Your task to perform on an android device: all mails in gmail Image 0: 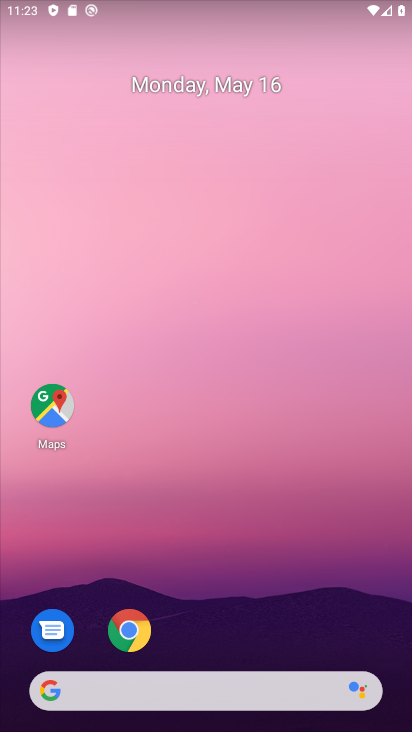
Step 0: drag from (203, 659) to (282, 283)
Your task to perform on an android device: all mails in gmail Image 1: 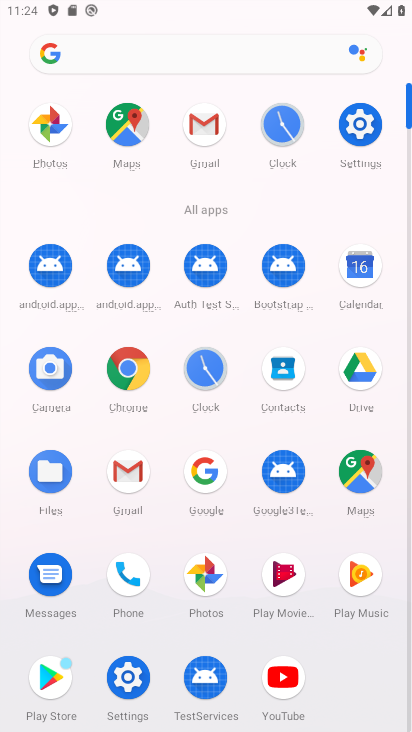
Step 1: click (145, 486)
Your task to perform on an android device: all mails in gmail Image 2: 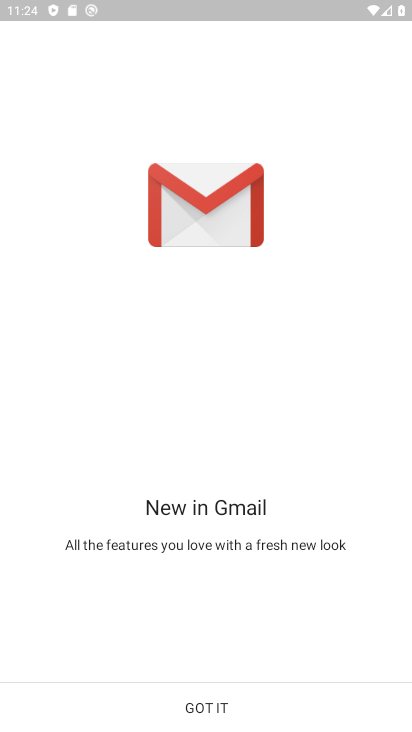
Step 2: click (211, 707)
Your task to perform on an android device: all mails in gmail Image 3: 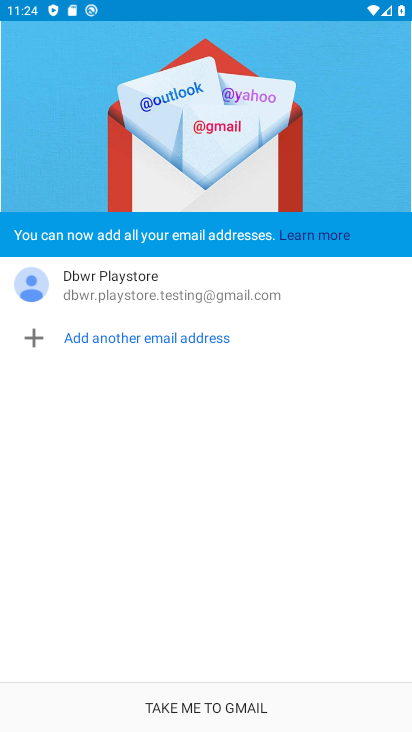
Step 3: click (229, 711)
Your task to perform on an android device: all mails in gmail Image 4: 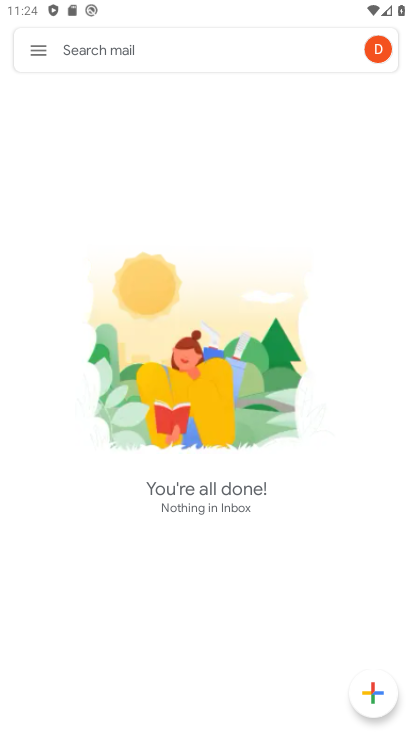
Step 4: click (51, 55)
Your task to perform on an android device: all mails in gmail Image 5: 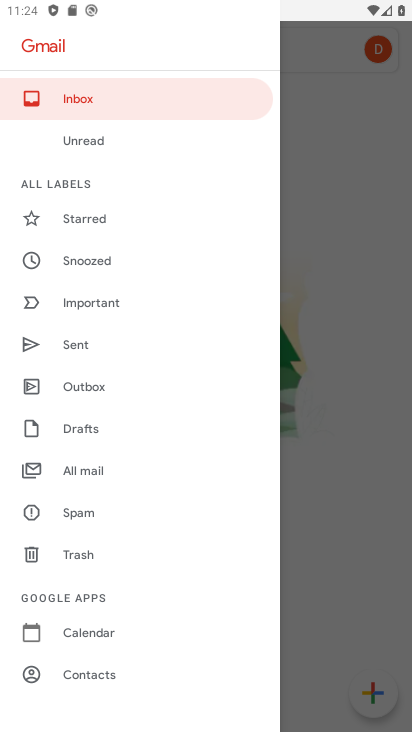
Step 5: click (114, 476)
Your task to perform on an android device: all mails in gmail Image 6: 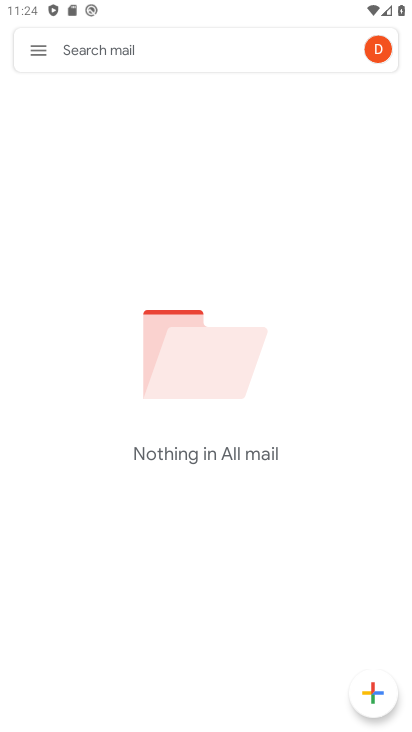
Step 6: task complete